Your task to perform on an android device: change the clock display to show seconds Image 0: 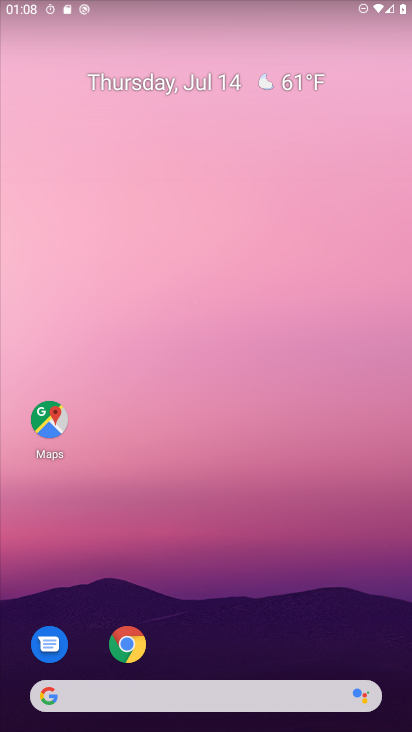
Step 0: drag from (280, 487) to (258, 30)
Your task to perform on an android device: change the clock display to show seconds Image 1: 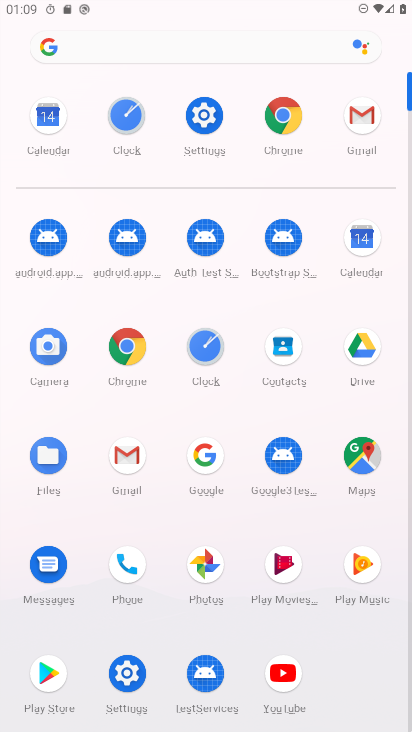
Step 1: click (203, 350)
Your task to perform on an android device: change the clock display to show seconds Image 2: 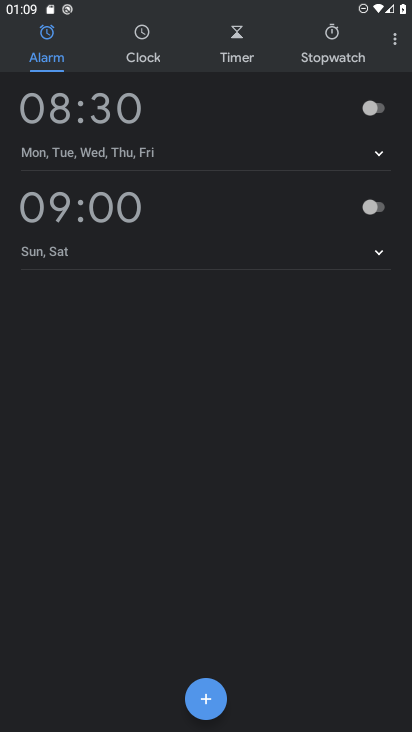
Step 2: click (397, 41)
Your task to perform on an android device: change the clock display to show seconds Image 3: 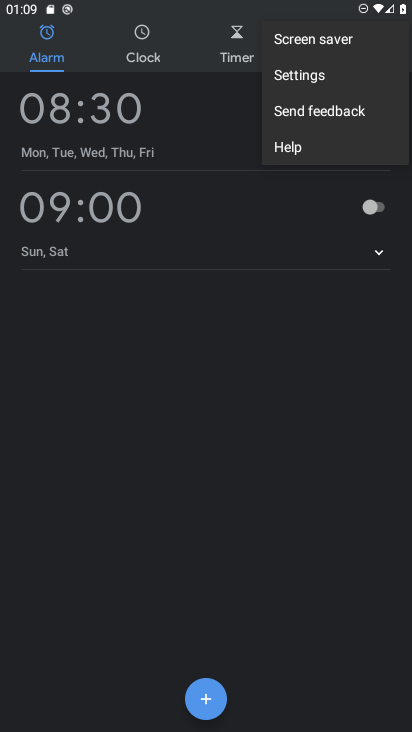
Step 3: click (304, 76)
Your task to perform on an android device: change the clock display to show seconds Image 4: 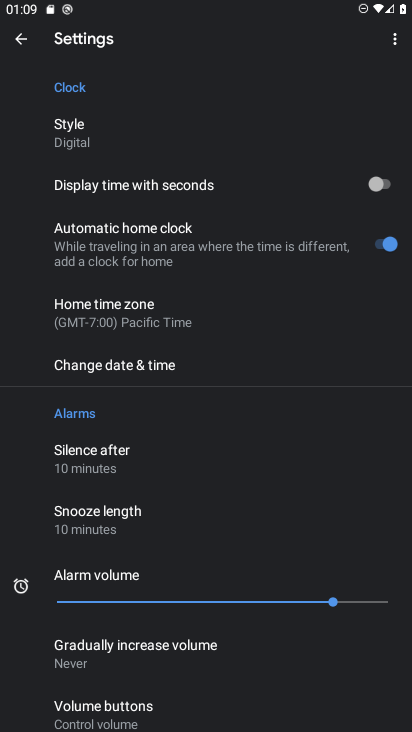
Step 4: click (403, 186)
Your task to perform on an android device: change the clock display to show seconds Image 5: 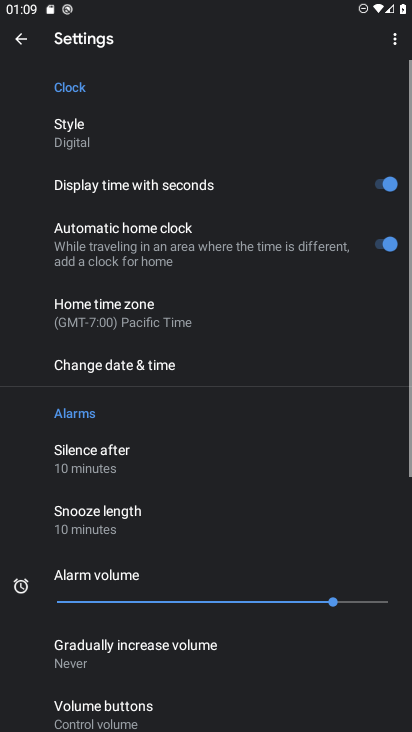
Step 5: task complete